Your task to perform on an android device: change the clock display to show seconds Image 0: 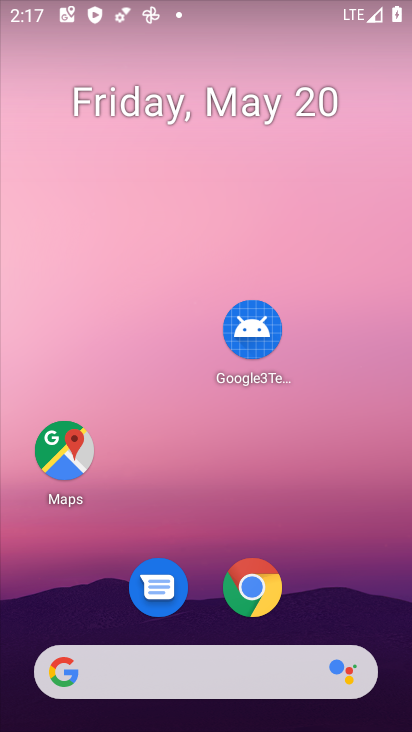
Step 0: press home button
Your task to perform on an android device: change the clock display to show seconds Image 1: 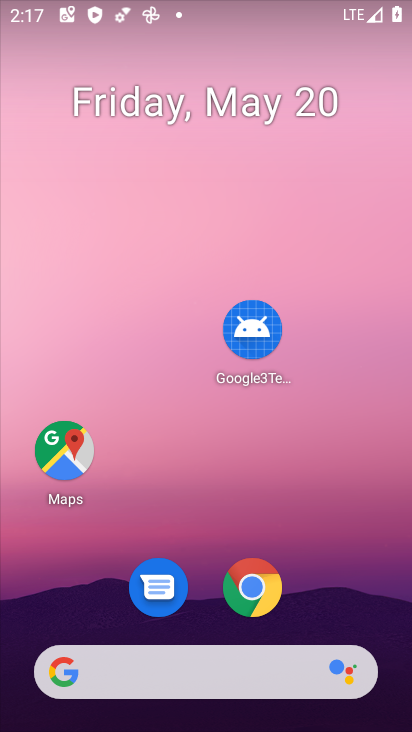
Step 1: drag from (358, 531) to (308, 0)
Your task to perform on an android device: change the clock display to show seconds Image 2: 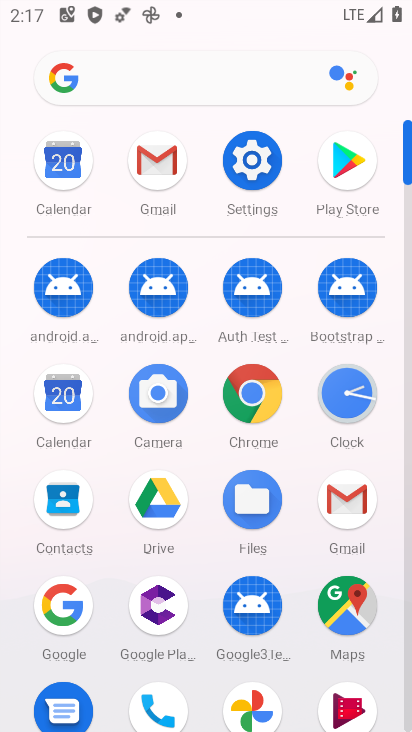
Step 2: click (350, 397)
Your task to perform on an android device: change the clock display to show seconds Image 3: 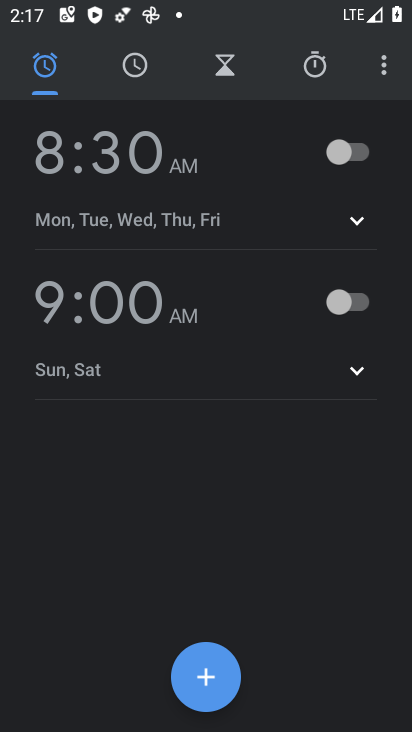
Step 3: click (386, 66)
Your task to perform on an android device: change the clock display to show seconds Image 4: 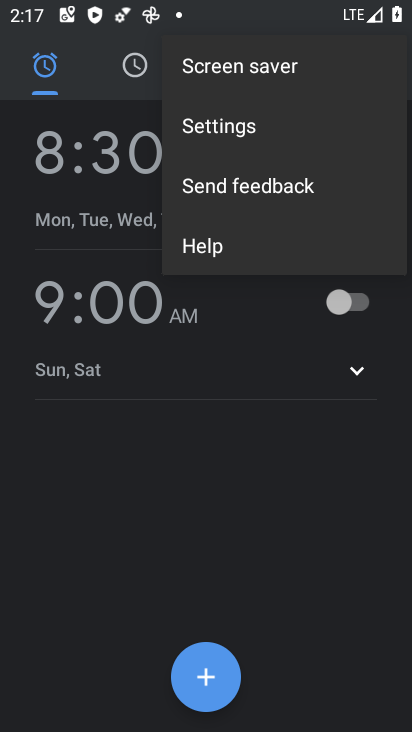
Step 4: click (220, 121)
Your task to perform on an android device: change the clock display to show seconds Image 5: 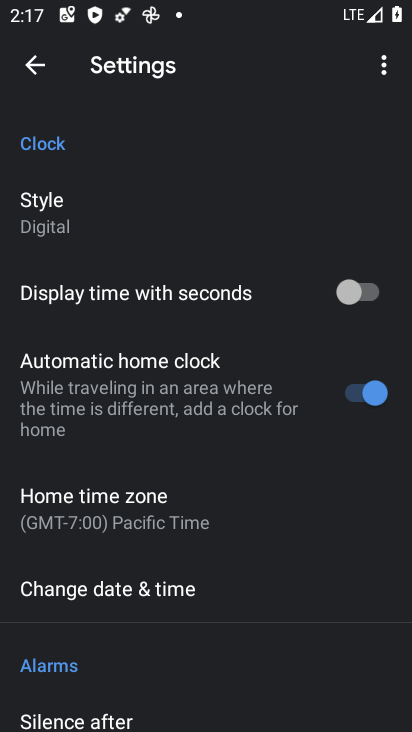
Step 5: click (44, 206)
Your task to perform on an android device: change the clock display to show seconds Image 6: 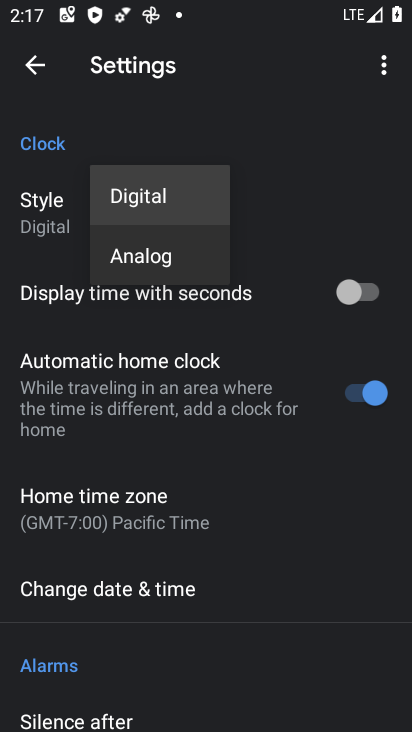
Step 6: click (362, 278)
Your task to perform on an android device: change the clock display to show seconds Image 7: 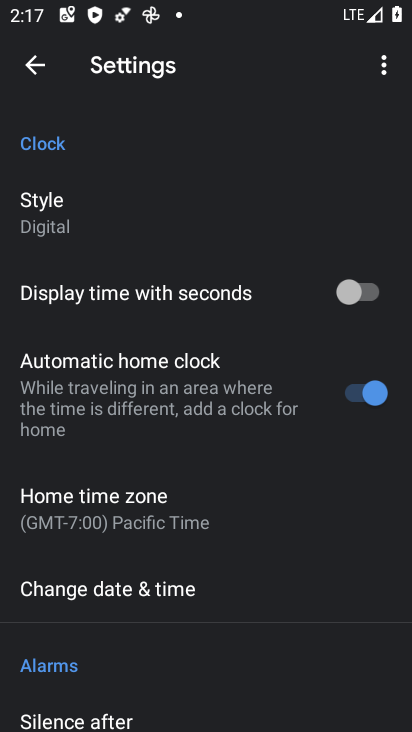
Step 7: click (340, 291)
Your task to perform on an android device: change the clock display to show seconds Image 8: 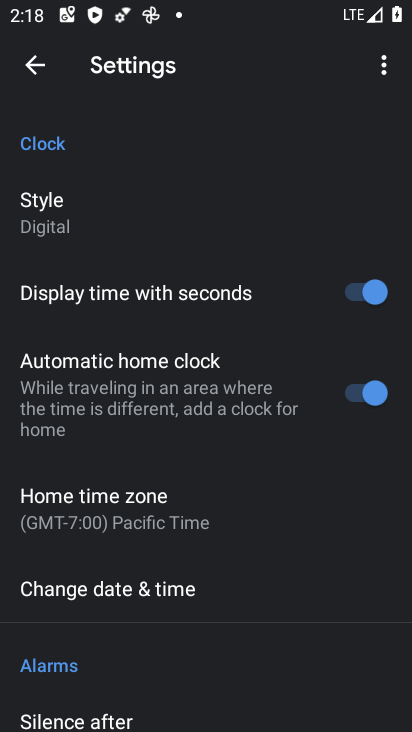
Step 8: task complete